Your task to perform on an android device: turn vacation reply on in the gmail app Image 0: 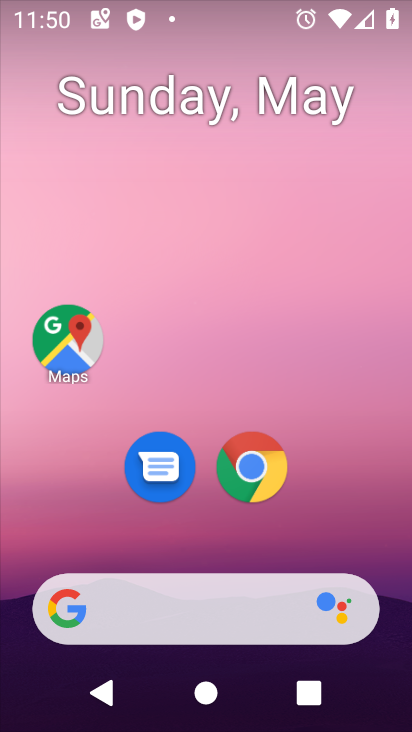
Step 0: drag from (366, 556) to (391, 0)
Your task to perform on an android device: turn vacation reply on in the gmail app Image 1: 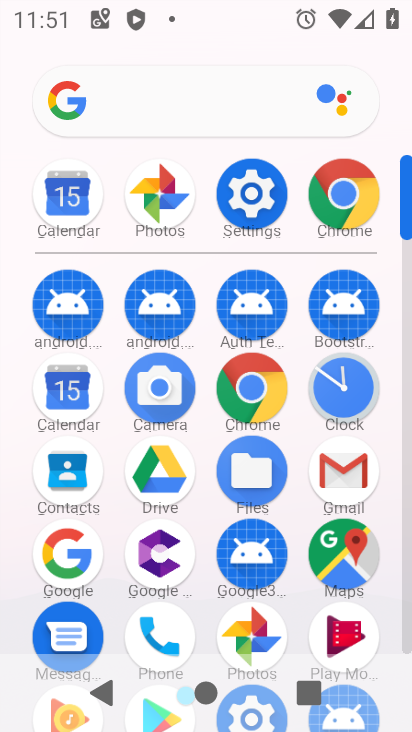
Step 1: click (341, 467)
Your task to perform on an android device: turn vacation reply on in the gmail app Image 2: 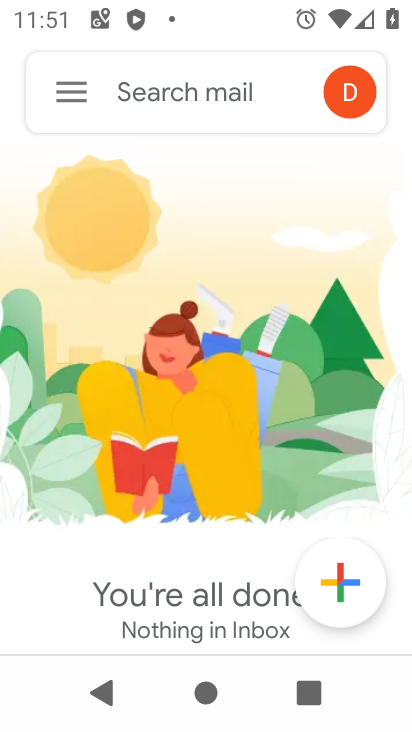
Step 2: click (66, 97)
Your task to perform on an android device: turn vacation reply on in the gmail app Image 3: 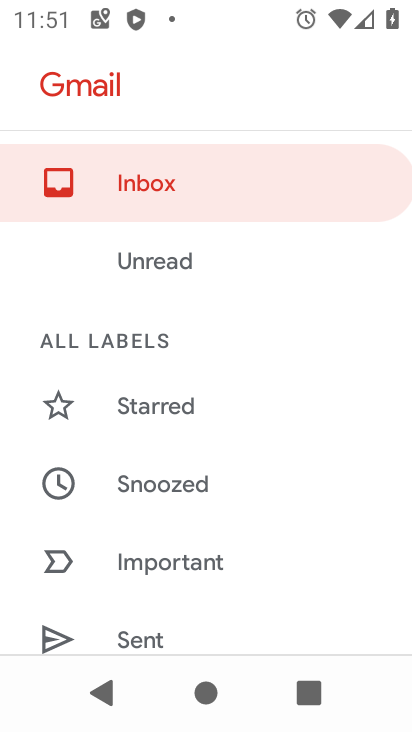
Step 3: drag from (266, 548) to (277, 151)
Your task to perform on an android device: turn vacation reply on in the gmail app Image 4: 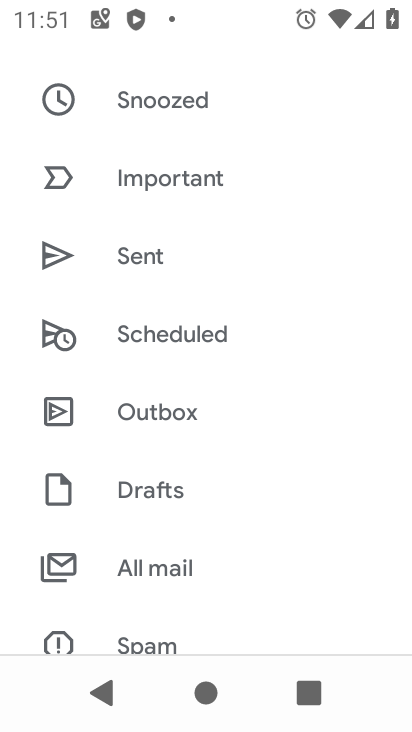
Step 4: drag from (218, 588) to (249, 169)
Your task to perform on an android device: turn vacation reply on in the gmail app Image 5: 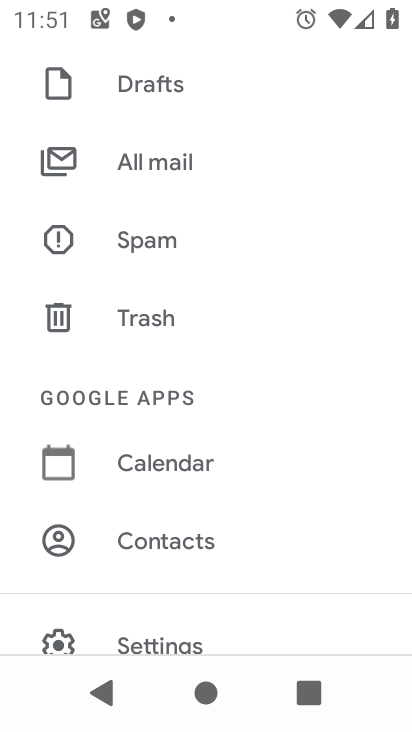
Step 5: drag from (309, 580) to (293, 274)
Your task to perform on an android device: turn vacation reply on in the gmail app Image 6: 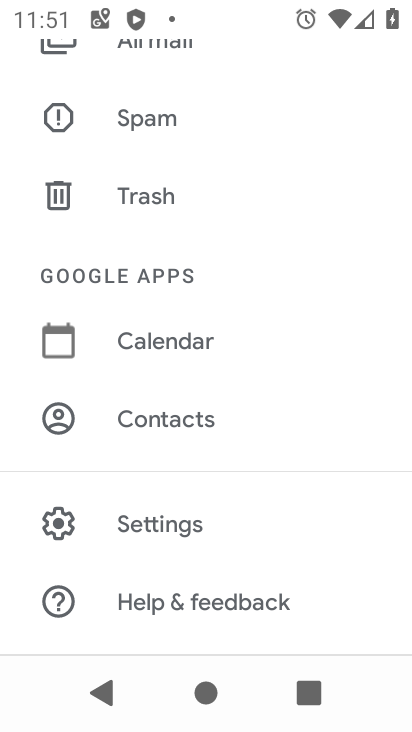
Step 6: click (151, 526)
Your task to perform on an android device: turn vacation reply on in the gmail app Image 7: 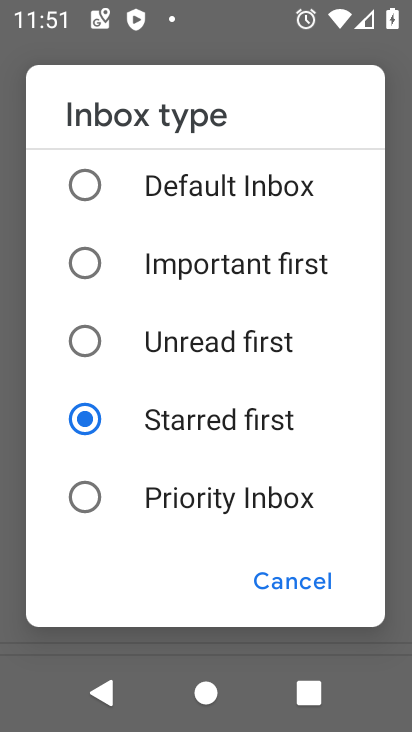
Step 7: click (270, 586)
Your task to perform on an android device: turn vacation reply on in the gmail app Image 8: 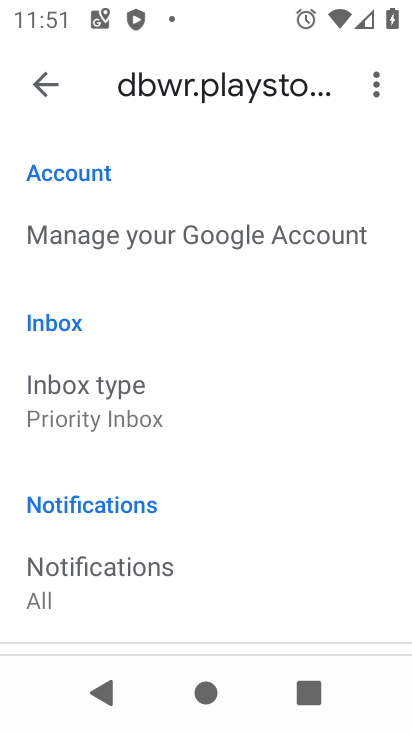
Step 8: drag from (188, 558) to (204, 79)
Your task to perform on an android device: turn vacation reply on in the gmail app Image 9: 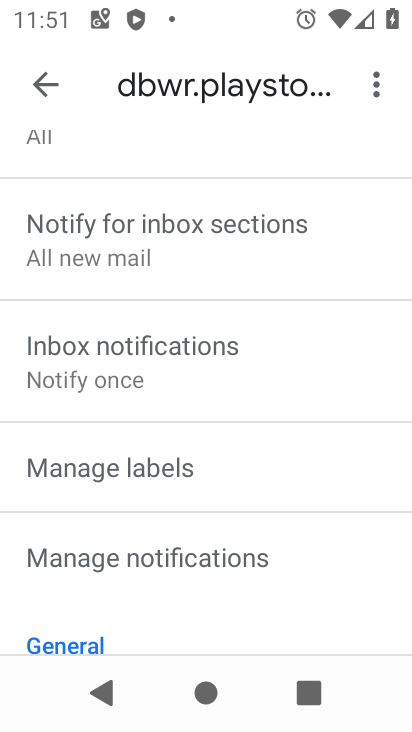
Step 9: drag from (186, 513) to (168, 117)
Your task to perform on an android device: turn vacation reply on in the gmail app Image 10: 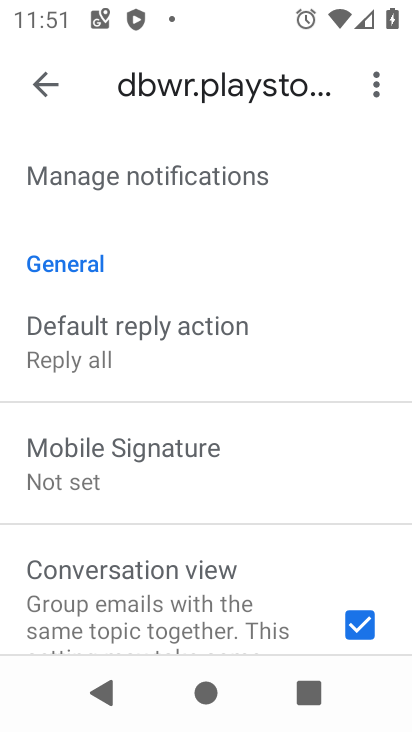
Step 10: drag from (183, 507) to (192, 115)
Your task to perform on an android device: turn vacation reply on in the gmail app Image 11: 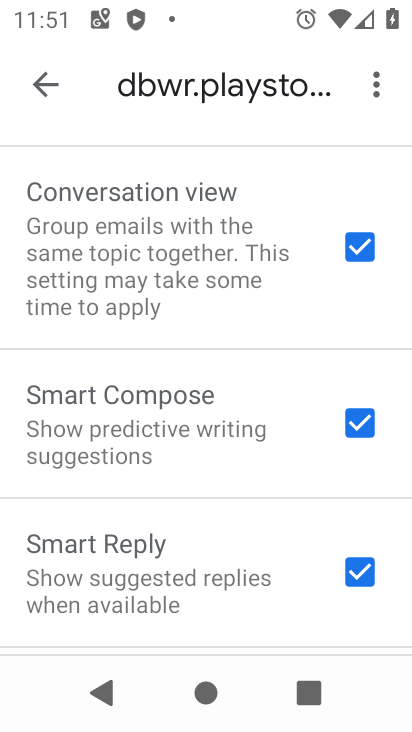
Step 11: drag from (147, 516) to (153, 156)
Your task to perform on an android device: turn vacation reply on in the gmail app Image 12: 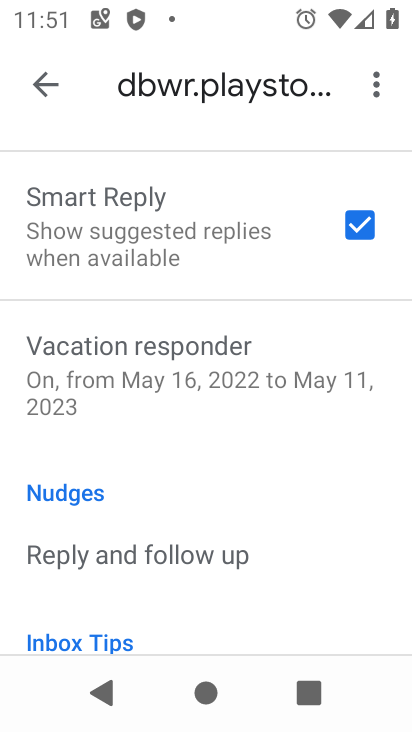
Step 12: click (128, 370)
Your task to perform on an android device: turn vacation reply on in the gmail app Image 13: 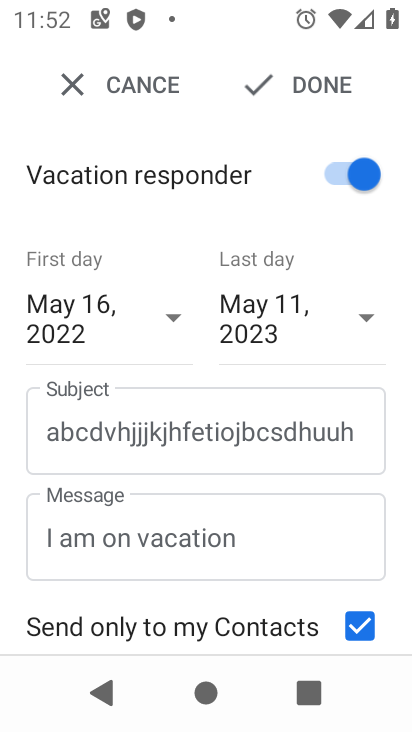
Step 13: click (327, 86)
Your task to perform on an android device: turn vacation reply on in the gmail app Image 14: 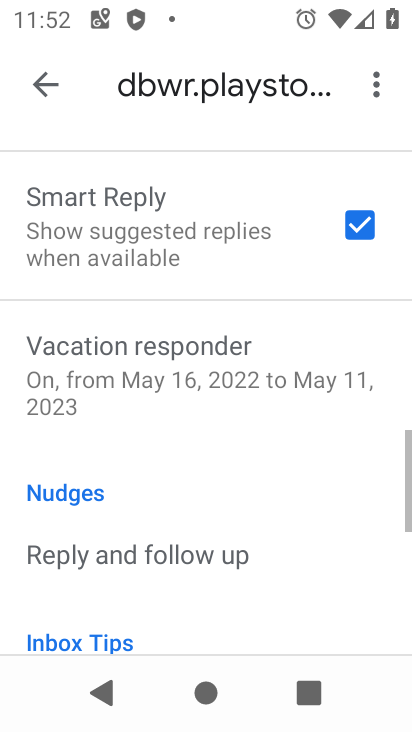
Step 14: task complete